Your task to perform on an android device: toggle airplane mode Image 0: 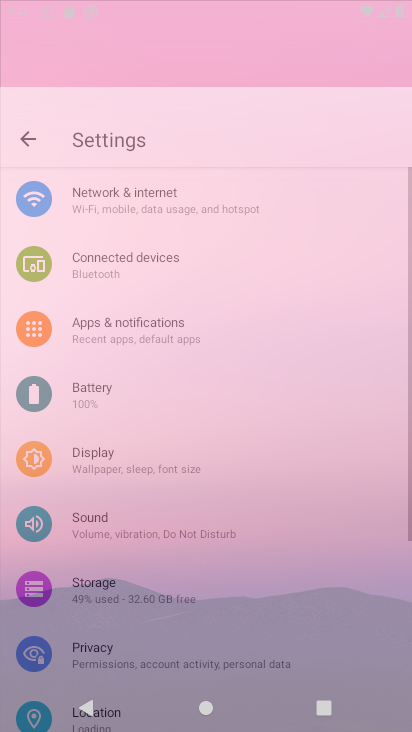
Step 0: drag from (214, 463) to (223, 102)
Your task to perform on an android device: toggle airplane mode Image 1: 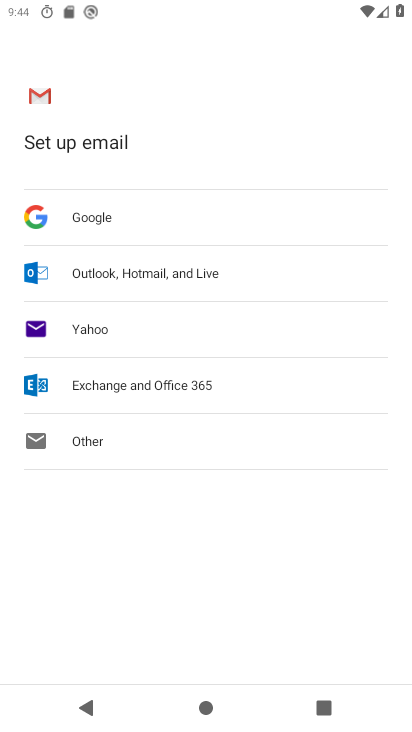
Step 1: press home button
Your task to perform on an android device: toggle airplane mode Image 2: 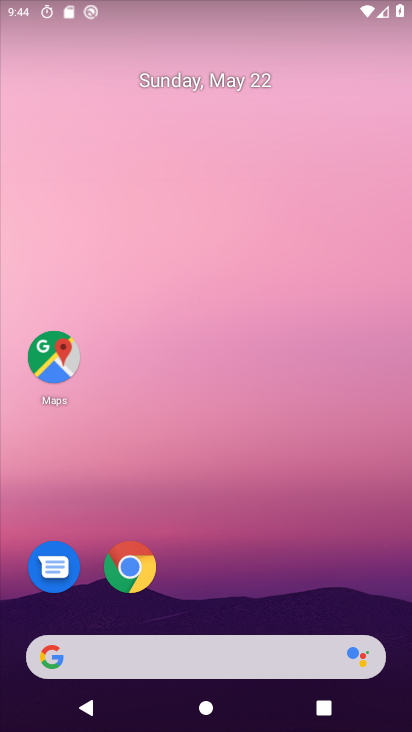
Step 2: drag from (215, 15) to (220, 590)
Your task to perform on an android device: toggle airplane mode Image 3: 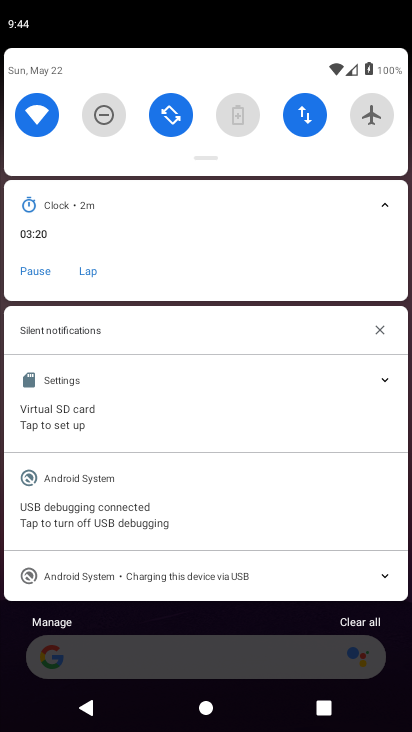
Step 3: click (369, 110)
Your task to perform on an android device: toggle airplane mode Image 4: 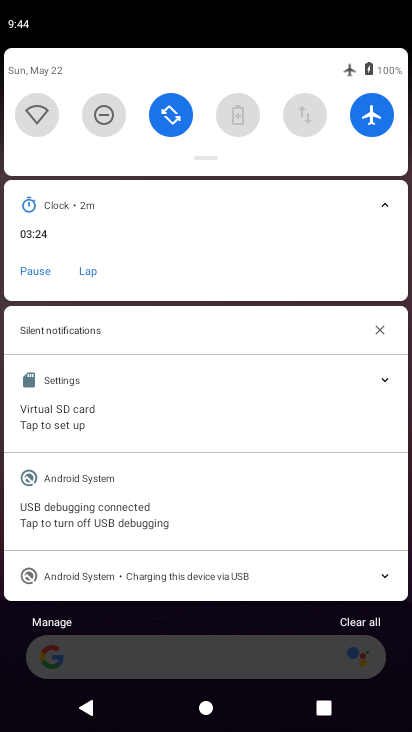
Step 4: task complete